Your task to perform on an android device: add a contact Image 0: 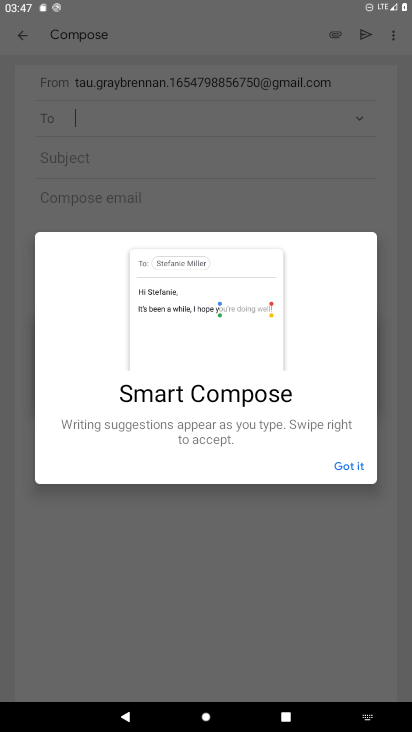
Step 0: click (348, 477)
Your task to perform on an android device: add a contact Image 1: 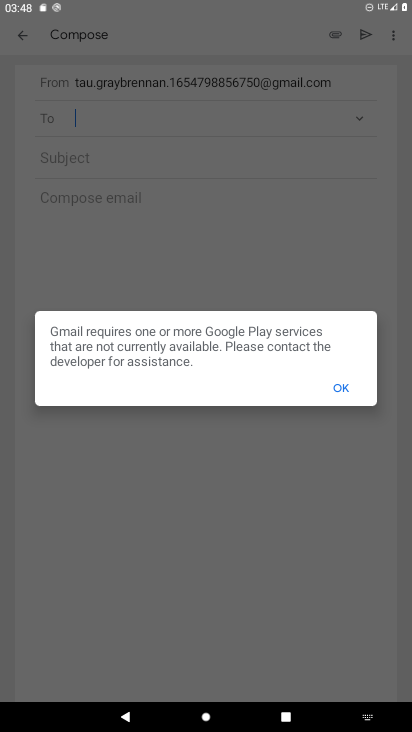
Step 1: press home button
Your task to perform on an android device: add a contact Image 2: 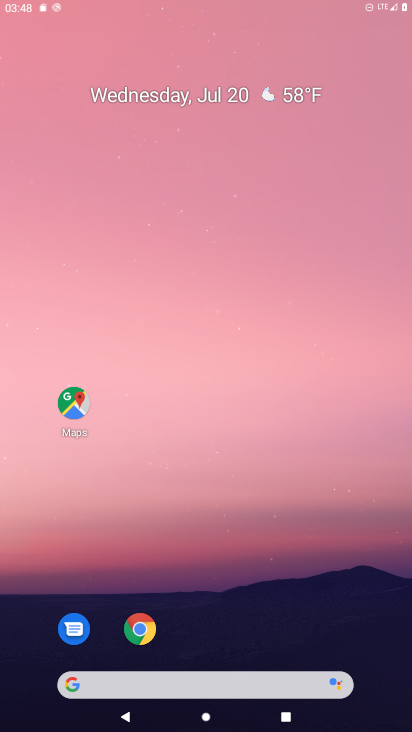
Step 2: drag from (199, 638) to (273, 161)
Your task to perform on an android device: add a contact Image 3: 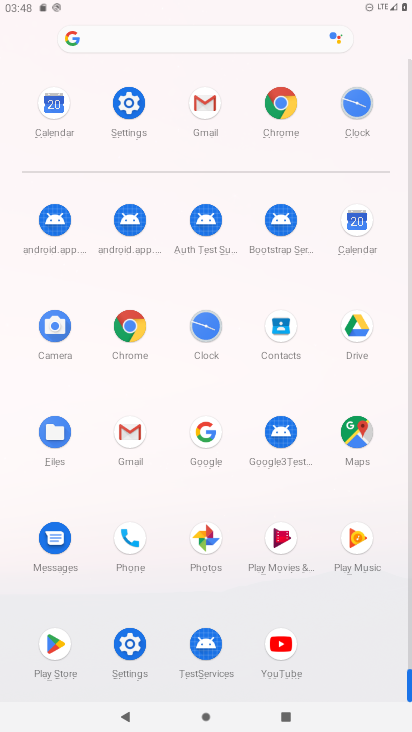
Step 3: click (295, 326)
Your task to perform on an android device: add a contact Image 4: 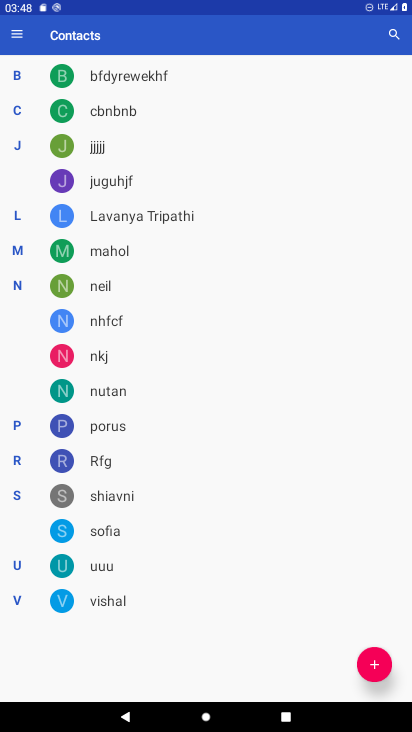
Step 4: click (384, 650)
Your task to perform on an android device: add a contact Image 5: 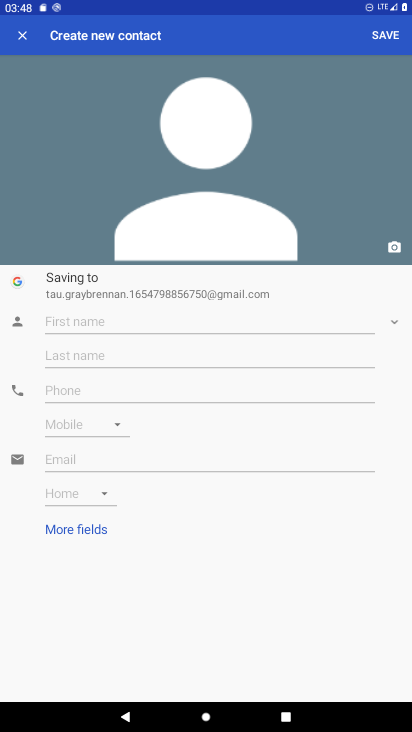
Step 5: click (183, 325)
Your task to perform on an android device: add a contact Image 6: 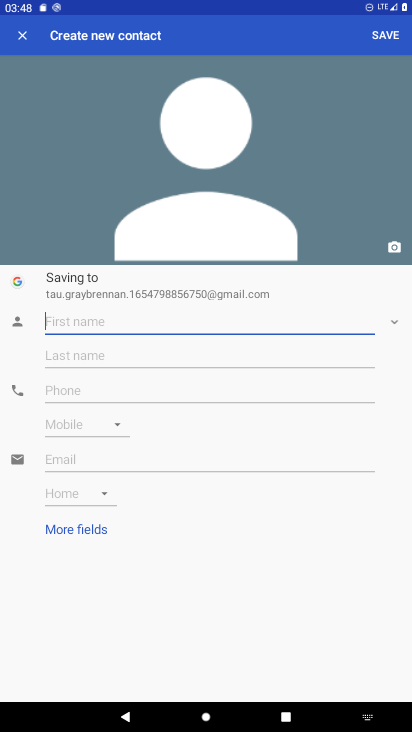
Step 6: type "vvllo"
Your task to perform on an android device: add a contact Image 7: 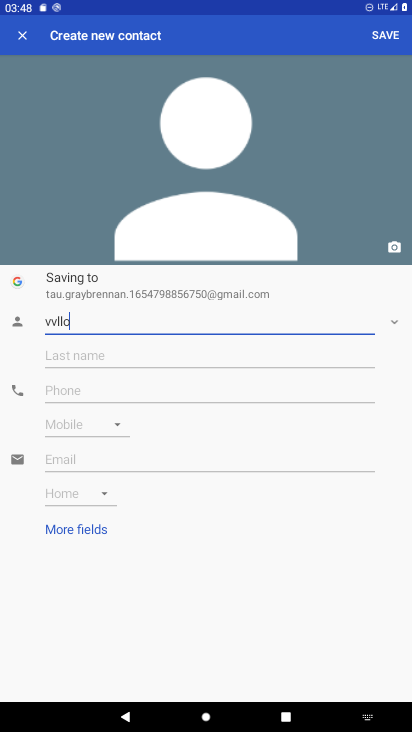
Step 7: click (61, 398)
Your task to perform on an android device: add a contact Image 8: 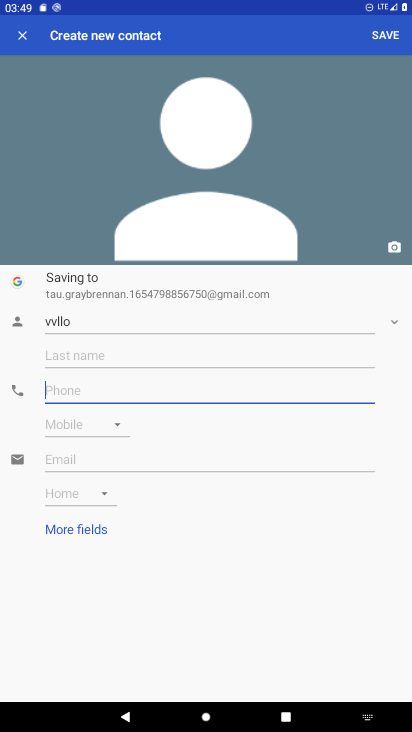
Step 8: type "0021"
Your task to perform on an android device: add a contact Image 9: 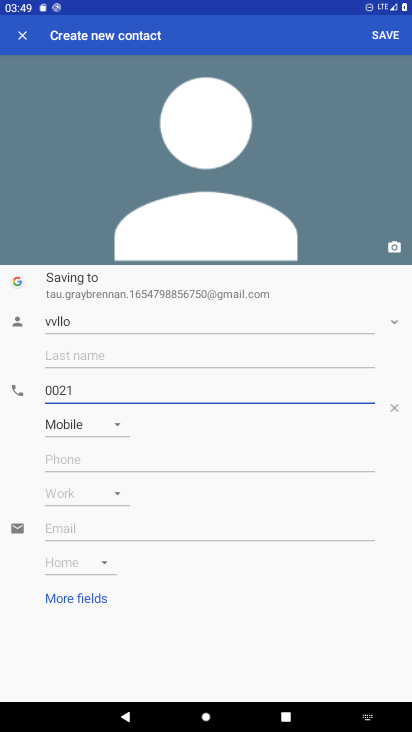
Step 9: click (386, 36)
Your task to perform on an android device: add a contact Image 10: 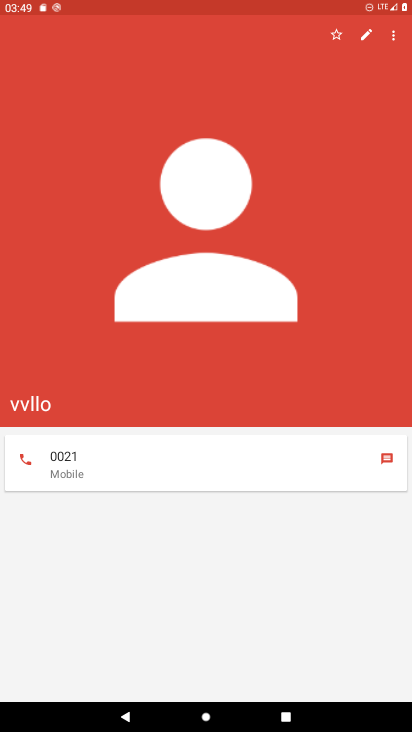
Step 10: task complete